Your task to perform on an android device: Go to display settings Image 0: 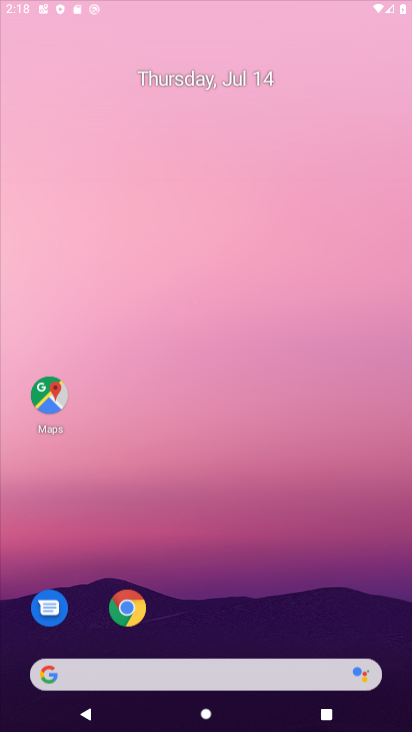
Step 0: click (186, 565)
Your task to perform on an android device: Go to display settings Image 1: 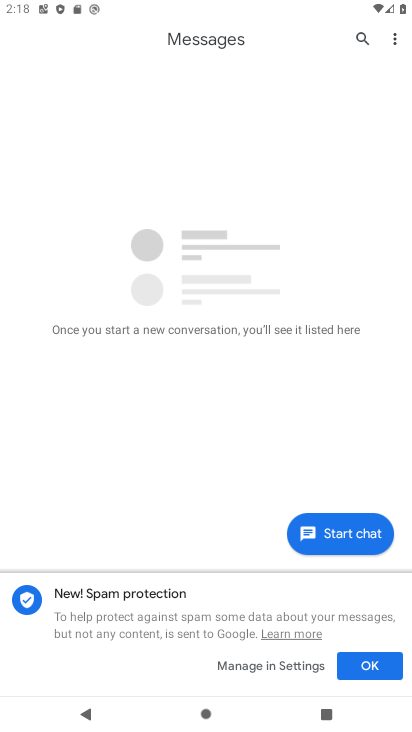
Step 1: press back button
Your task to perform on an android device: Go to display settings Image 2: 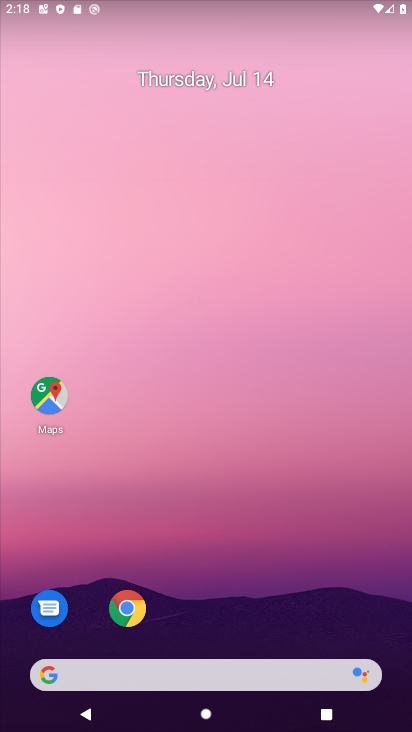
Step 2: drag from (103, 4) to (102, 543)
Your task to perform on an android device: Go to display settings Image 3: 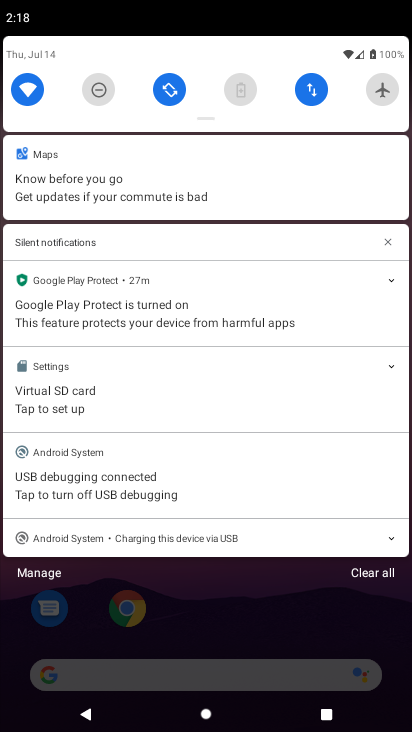
Step 3: drag from (168, 576) to (269, 71)
Your task to perform on an android device: Go to display settings Image 4: 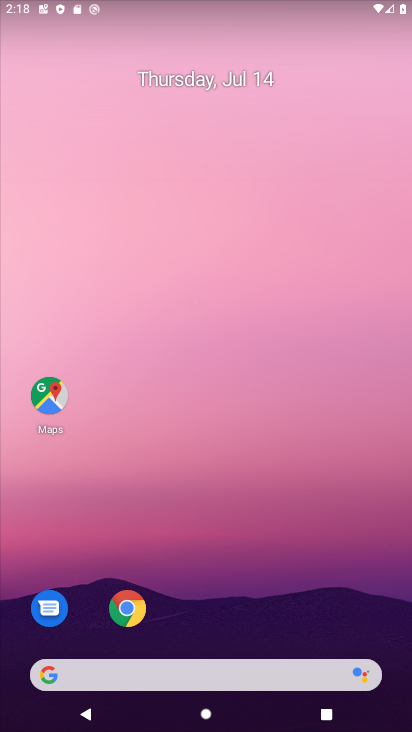
Step 4: drag from (214, 616) to (290, 34)
Your task to perform on an android device: Go to display settings Image 5: 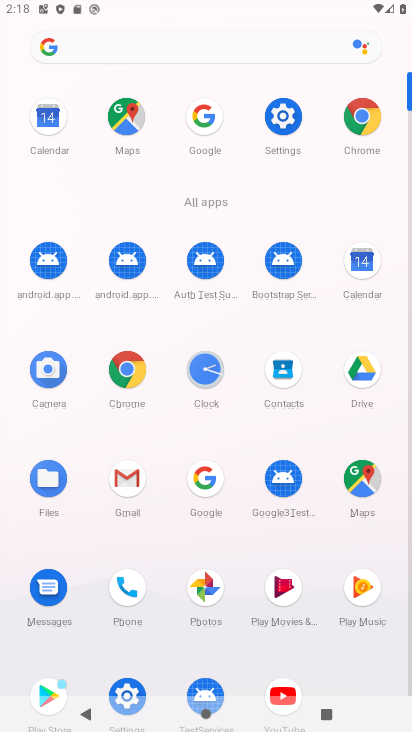
Step 5: click (291, 116)
Your task to perform on an android device: Go to display settings Image 6: 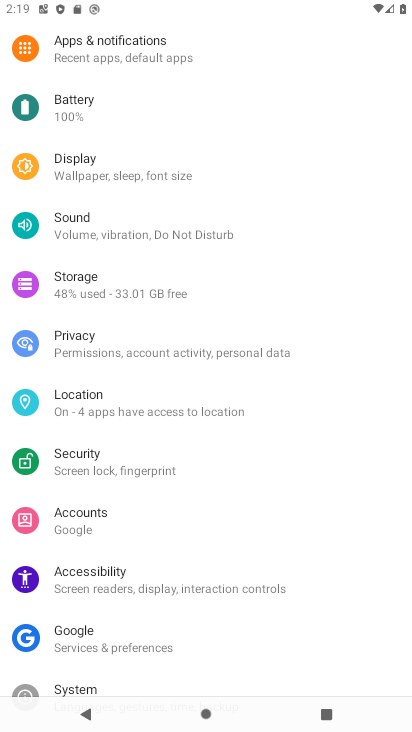
Step 6: click (130, 170)
Your task to perform on an android device: Go to display settings Image 7: 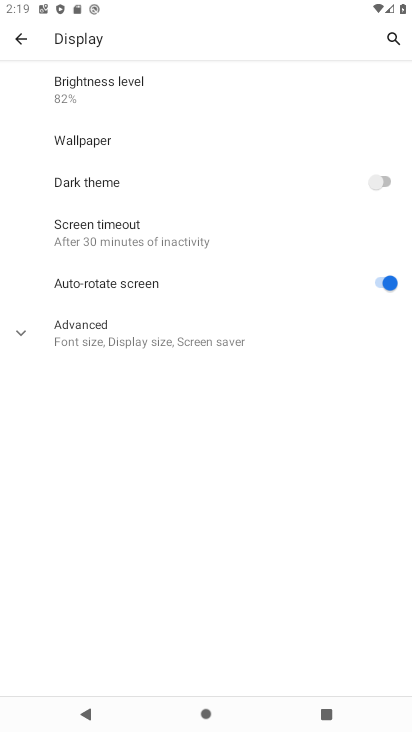
Step 7: task complete